Your task to perform on an android device: turn on notifications settings in the gmail app Image 0: 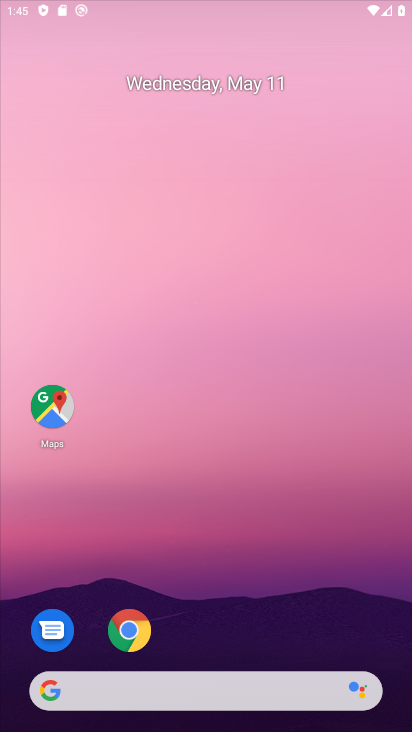
Step 0: press home button
Your task to perform on an android device: turn on notifications settings in the gmail app Image 1: 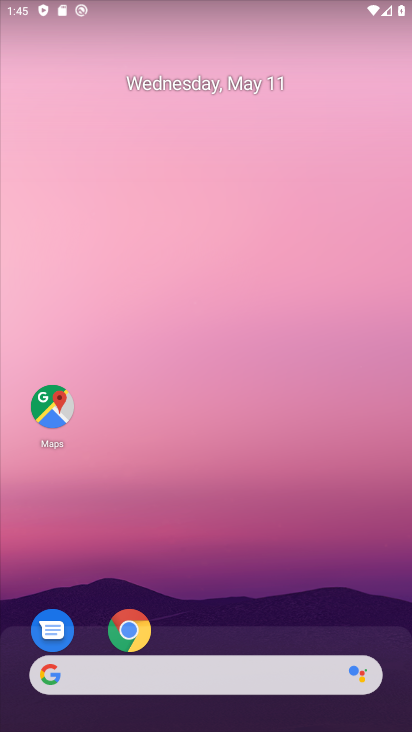
Step 1: drag from (207, 706) to (206, 271)
Your task to perform on an android device: turn on notifications settings in the gmail app Image 2: 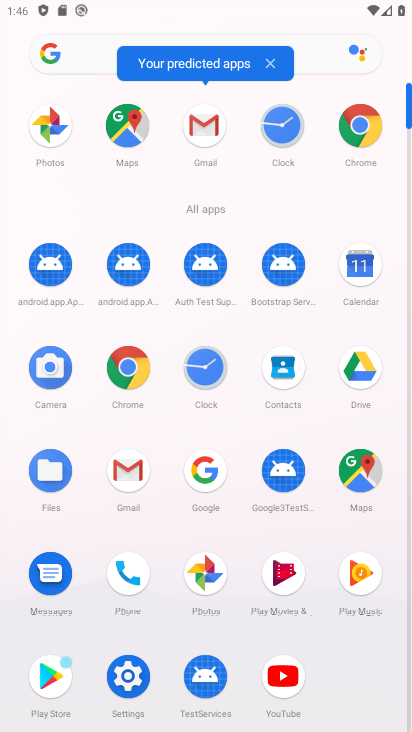
Step 2: click (121, 471)
Your task to perform on an android device: turn on notifications settings in the gmail app Image 3: 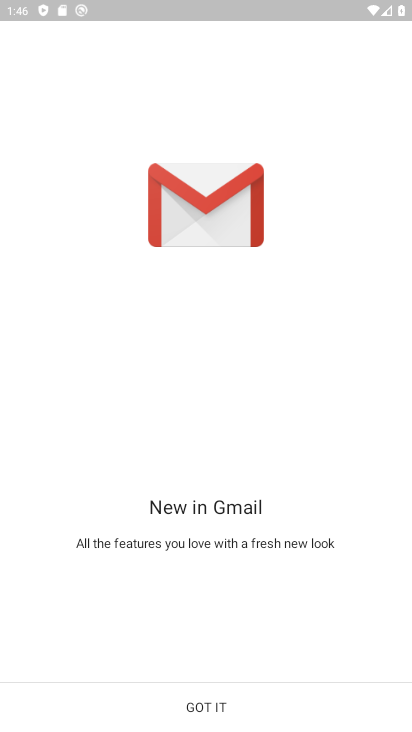
Step 3: click (197, 707)
Your task to perform on an android device: turn on notifications settings in the gmail app Image 4: 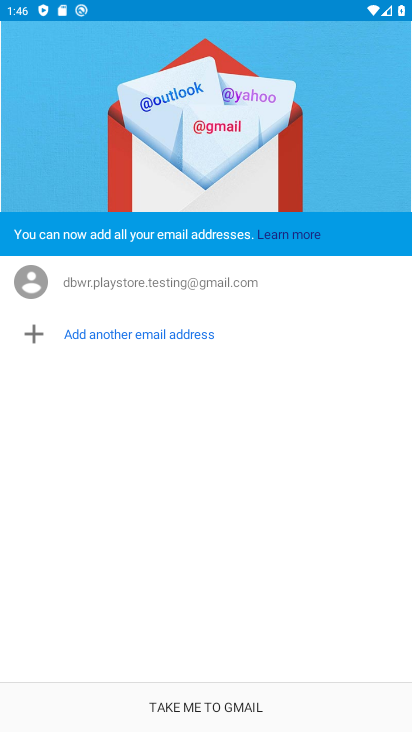
Step 4: click (202, 704)
Your task to perform on an android device: turn on notifications settings in the gmail app Image 5: 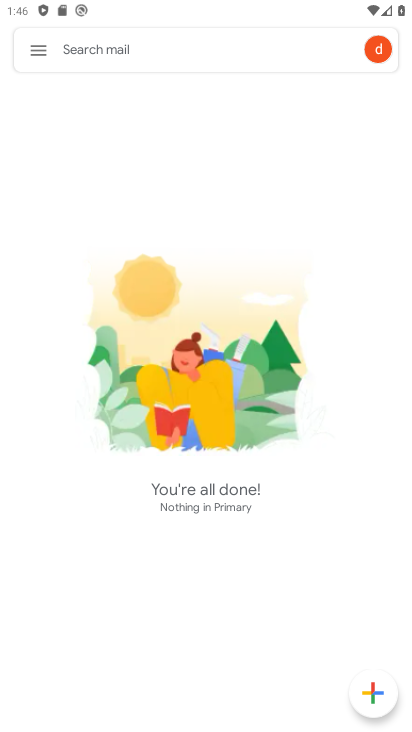
Step 5: click (35, 44)
Your task to perform on an android device: turn on notifications settings in the gmail app Image 6: 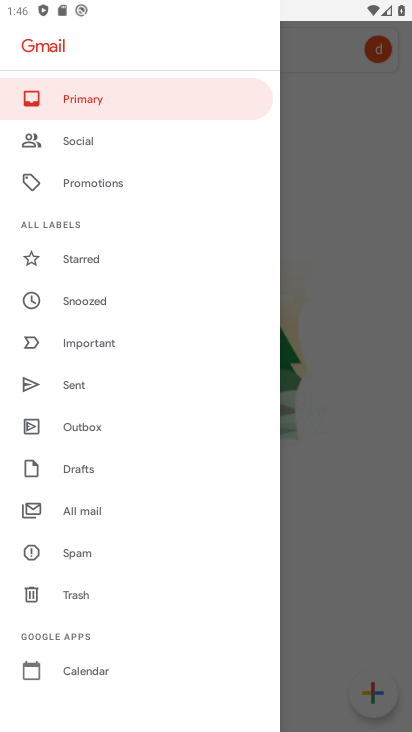
Step 6: drag from (93, 682) to (87, 326)
Your task to perform on an android device: turn on notifications settings in the gmail app Image 7: 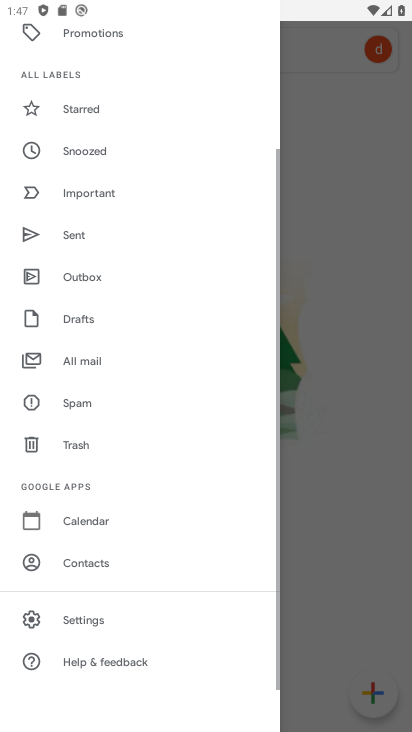
Step 7: click (84, 619)
Your task to perform on an android device: turn on notifications settings in the gmail app Image 8: 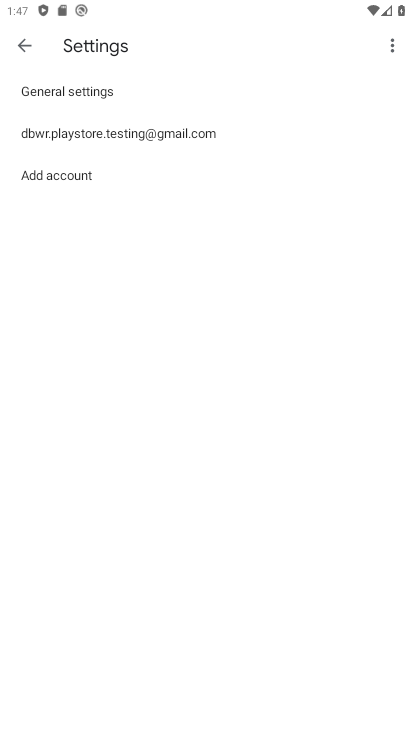
Step 8: click (167, 129)
Your task to perform on an android device: turn on notifications settings in the gmail app Image 9: 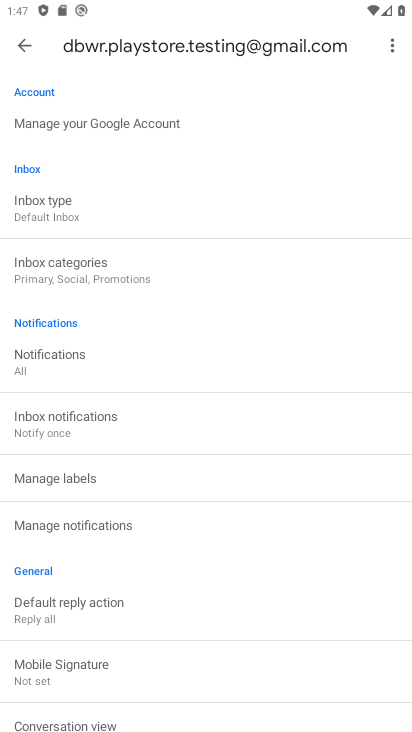
Step 9: click (81, 351)
Your task to perform on an android device: turn on notifications settings in the gmail app Image 10: 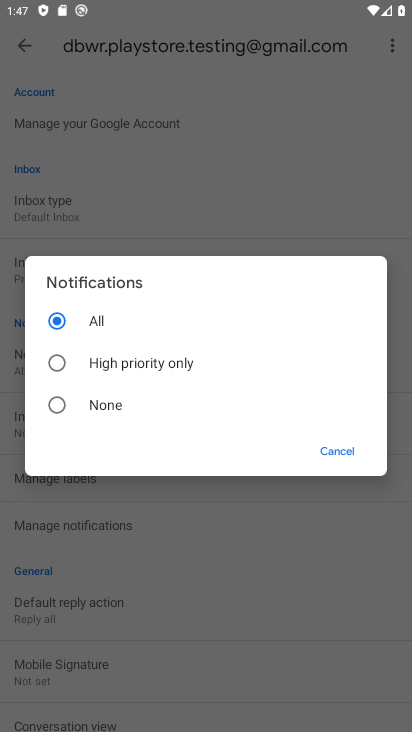
Step 10: click (335, 444)
Your task to perform on an android device: turn on notifications settings in the gmail app Image 11: 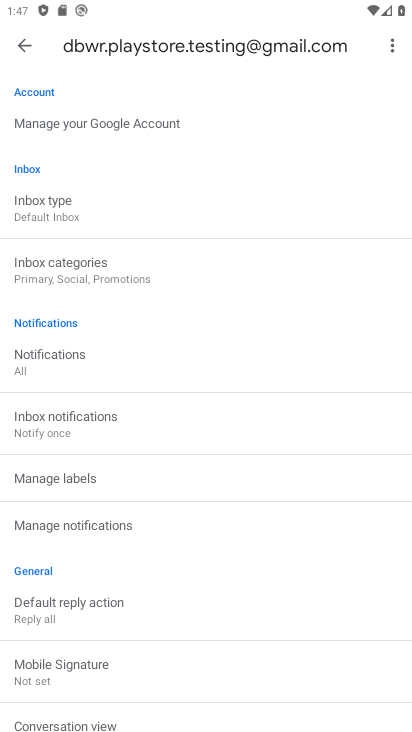
Step 11: task complete